Your task to perform on an android device: Toggle the flashlight Image 0: 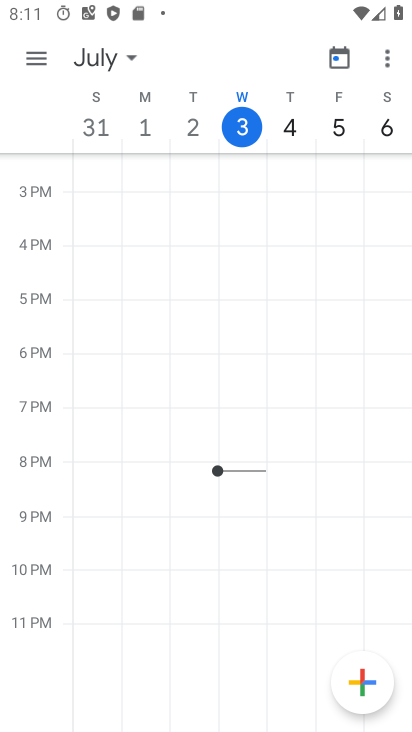
Step 0: press home button
Your task to perform on an android device: Toggle the flashlight Image 1: 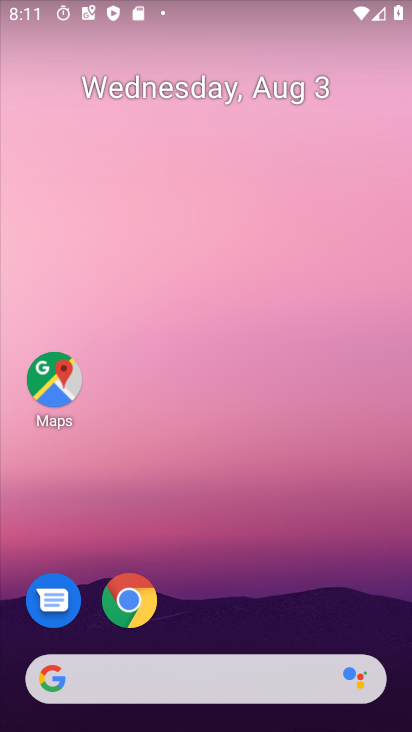
Step 1: drag from (194, 608) to (211, 59)
Your task to perform on an android device: Toggle the flashlight Image 2: 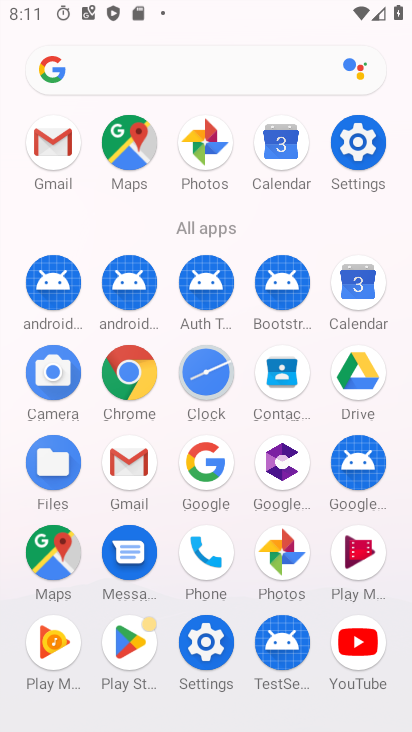
Step 2: click (362, 160)
Your task to perform on an android device: Toggle the flashlight Image 3: 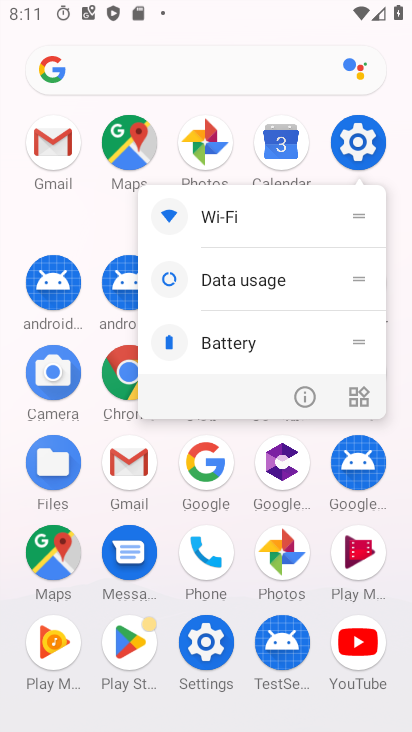
Step 3: click (365, 136)
Your task to perform on an android device: Toggle the flashlight Image 4: 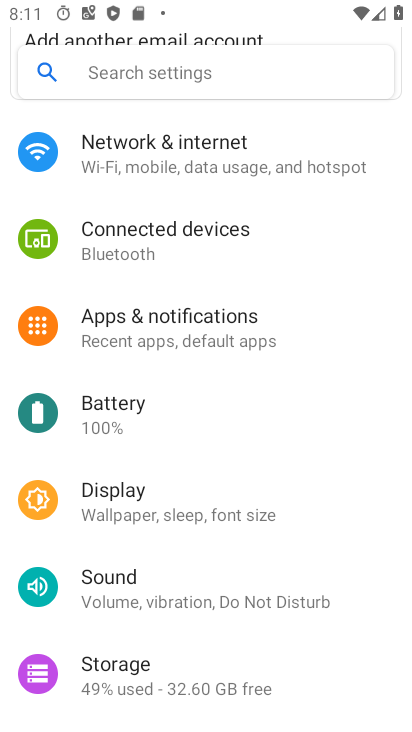
Step 4: click (162, 75)
Your task to perform on an android device: Toggle the flashlight Image 5: 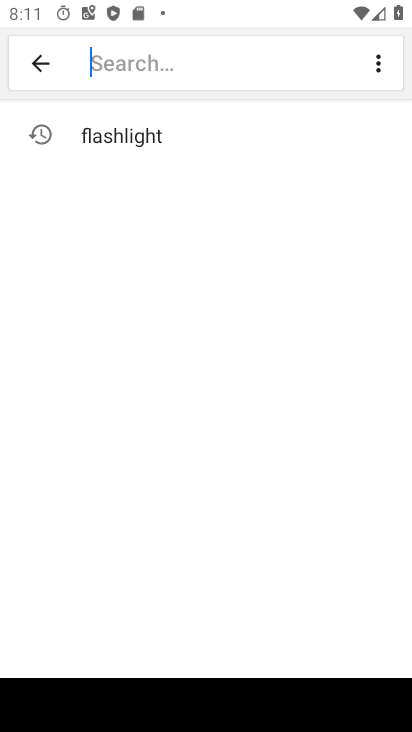
Step 5: type "flashligth"
Your task to perform on an android device: Toggle the flashlight Image 6: 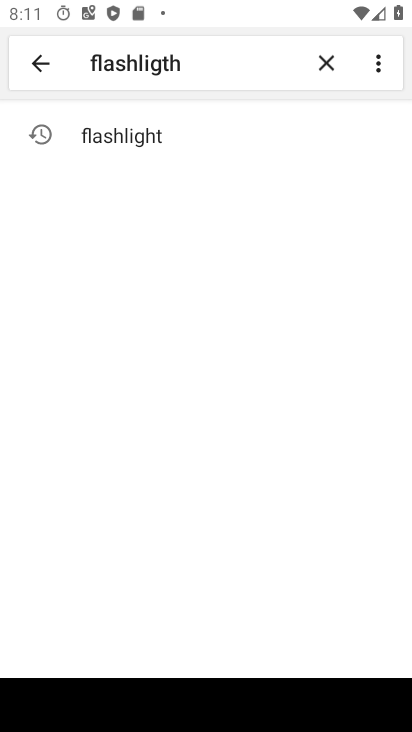
Step 6: click (174, 137)
Your task to perform on an android device: Toggle the flashlight Image 7: 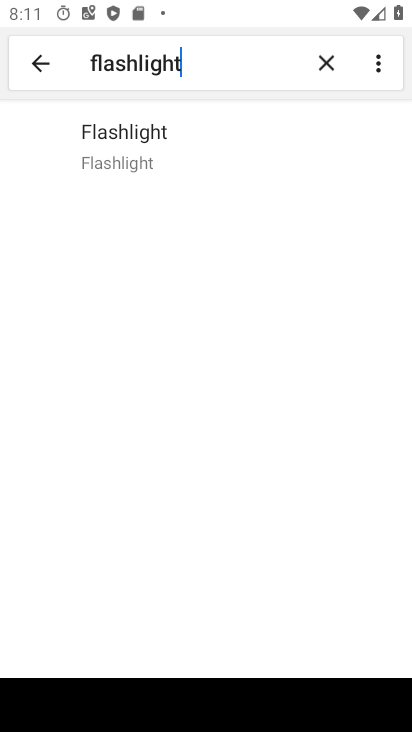
Step 7: click (174, 137)
Your task to perform on an android device: Toggle the flashlight Image 8: 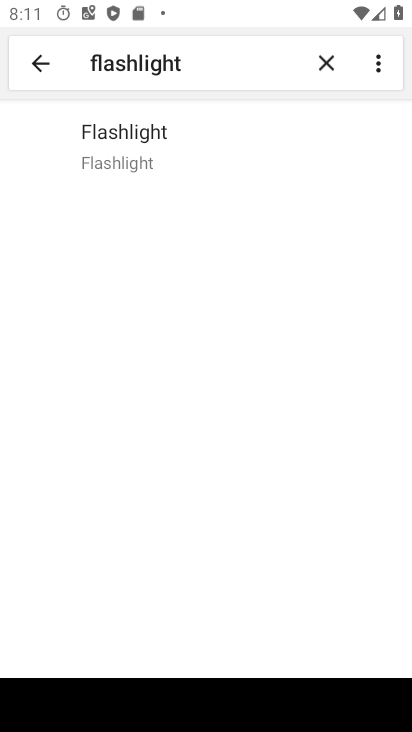
Step 8: task complete